Your task to perform on an android device: open sync settings in chrome Image 0: 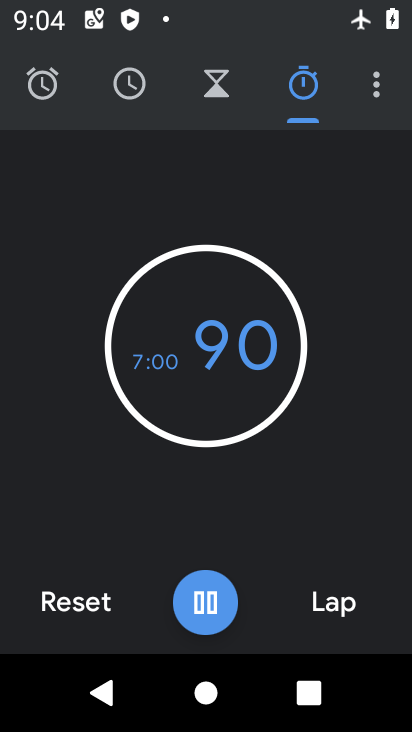
Step 0: click (219, 610)
Your task to perform on an android device: open sync settings in chrome Image 1: 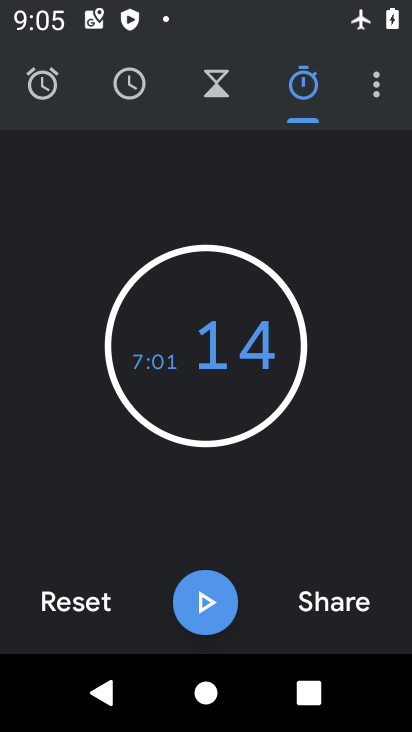
Step 1: press home button
Your task to perform on an android device: open sync settings in chrome Image 2: 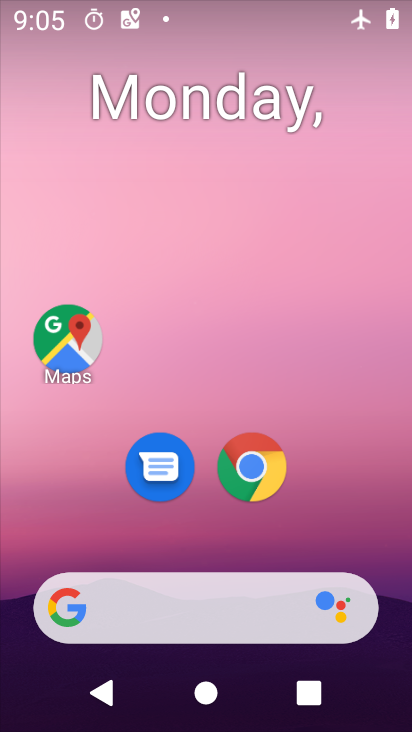
Step 2: click (246, 484)
Your task to perform on an android device: open sync settings in chrome Image 3: 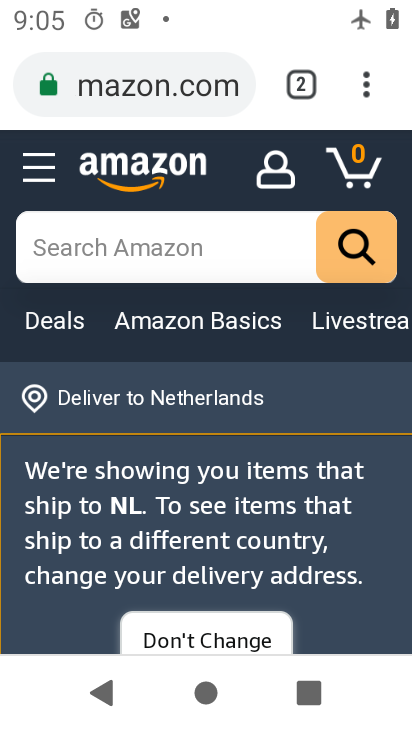
Step 3: click (365, 79)
Your task to perform on an android device: open sync settings in chrome Image 4: 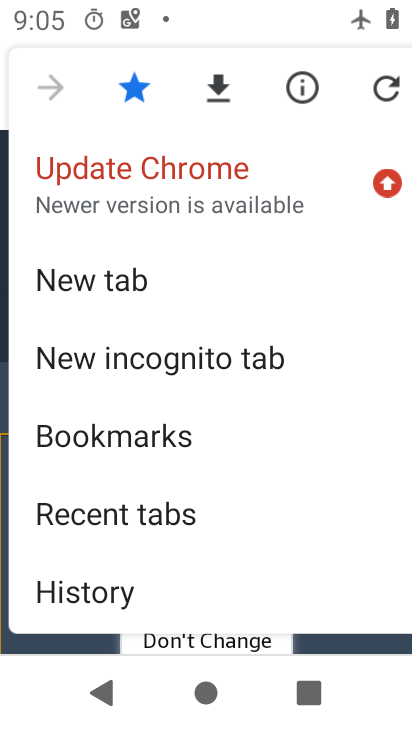
Step 4: drag from (170, 537) to (233, 12)
Your task to perform on an android device: open sync settings in chrome Image 5: 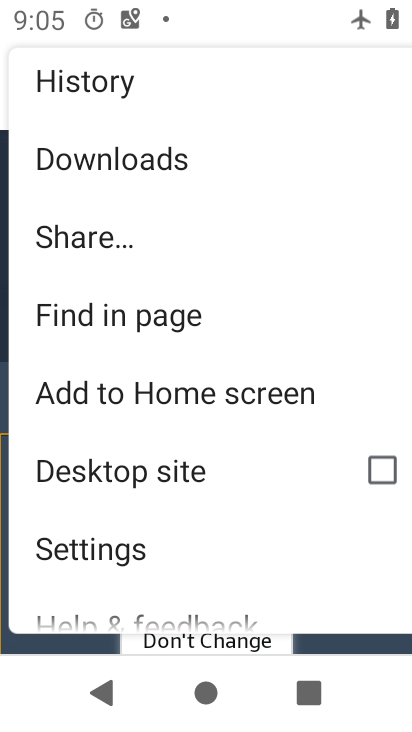
Step 5: click (127, 537)
Your task to perform on an android device: open sync settings in chrome Image 6: 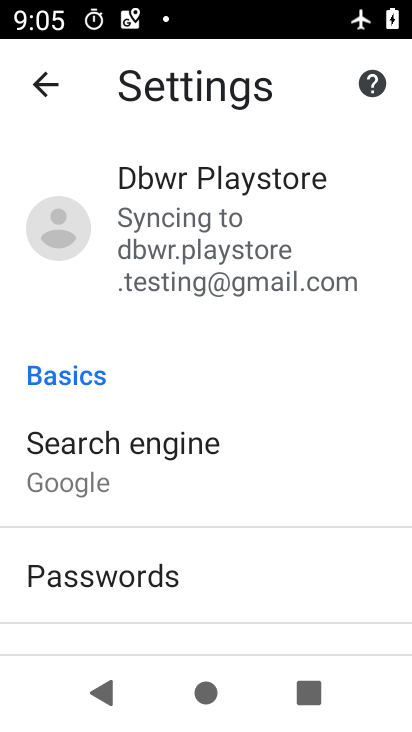
Step 6: drag from (156, 461) to (197, 99)
Your task to perform on an android device: open sync settings in chrome Image 7: 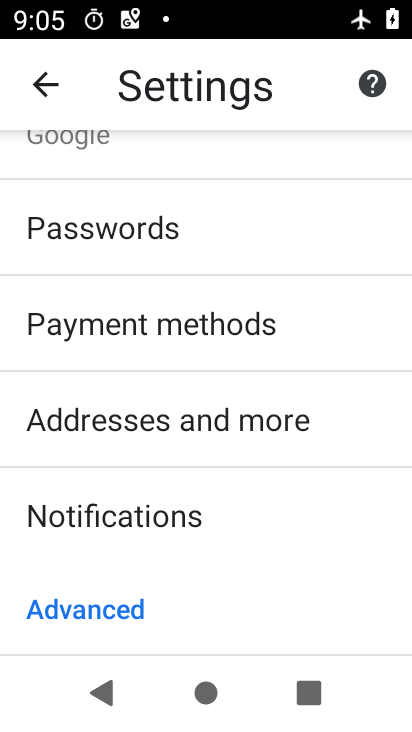
Step 7: drag from (188, 626) to (245, 4)
Your task to perform on an android device: open sync settings in chrome Image 8: 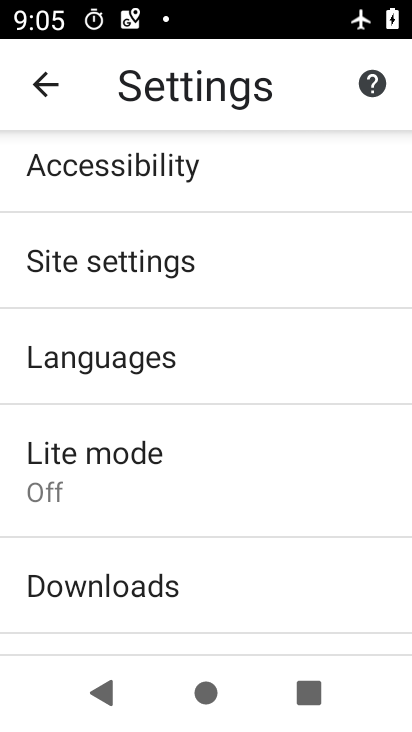
Step 8: click (198, 272)
Your task to perform on an android device: open sync settings in chrome Image 9: 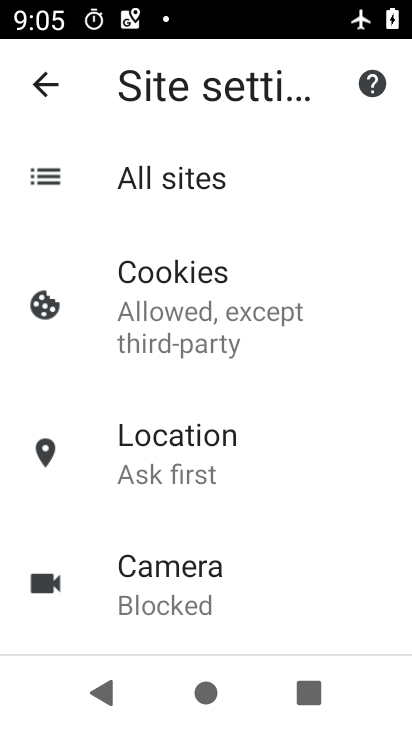
Step 9: drag from (221, 497) to (297, 117)
Your task to perform on an android device: open sync settings in chrome Image 10: 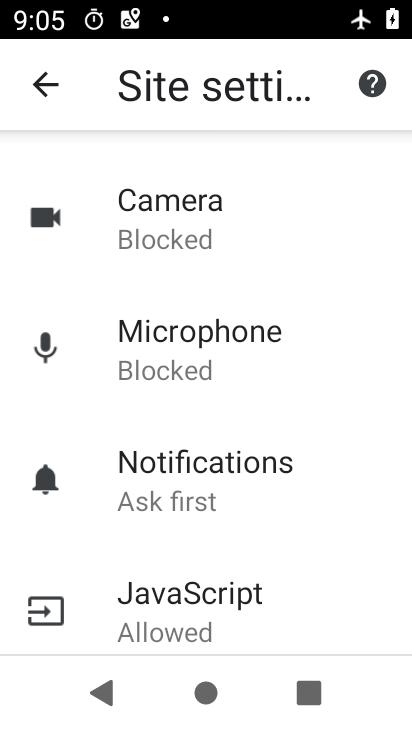
Step 10: drag from (222, 595) to (266, 204)
Your task to perform on an android device: open sync settings in chrome Image 11: 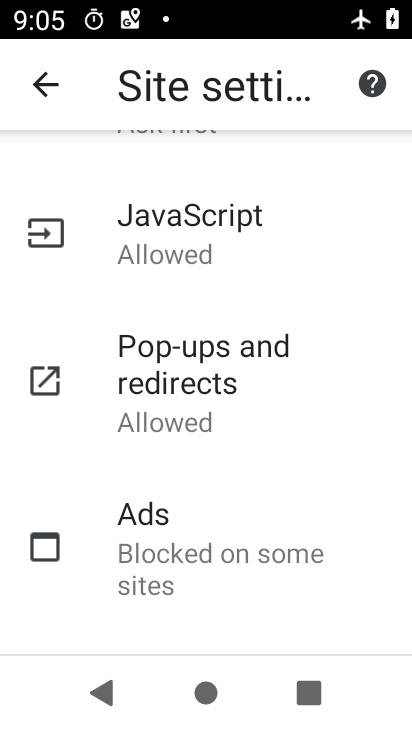
Step 11: drag from (239, 637) to (257, 277)
Your task to perform on an android device: open sync settings in chrome Image 12: 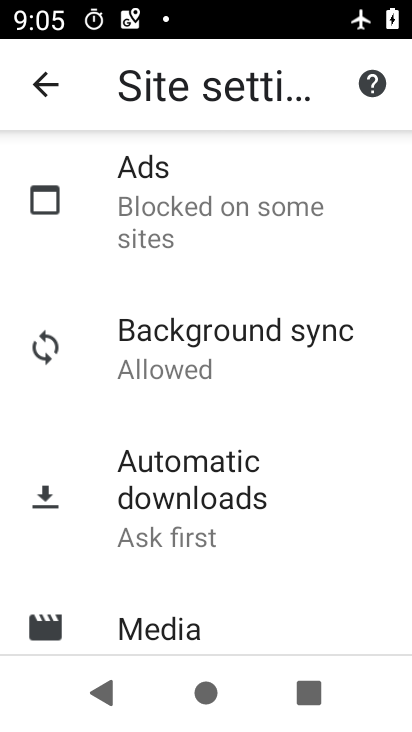
Step 12: click (234, 374)
Your task to perform on an android device: open sync settings in chrome Image 13: 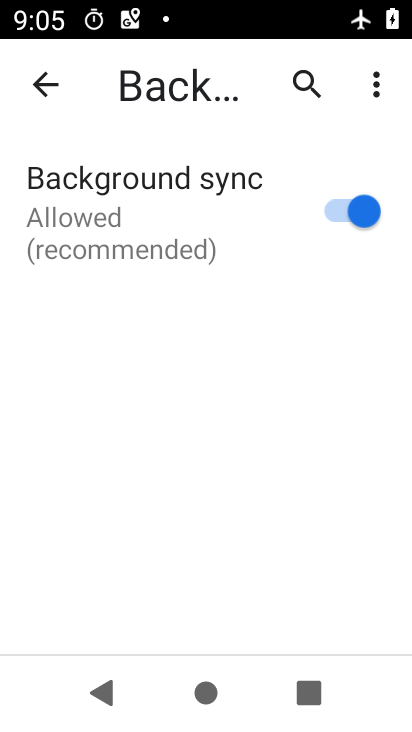
Step 13: task complete